Your task to perform on an android device: turn off location Image 0: 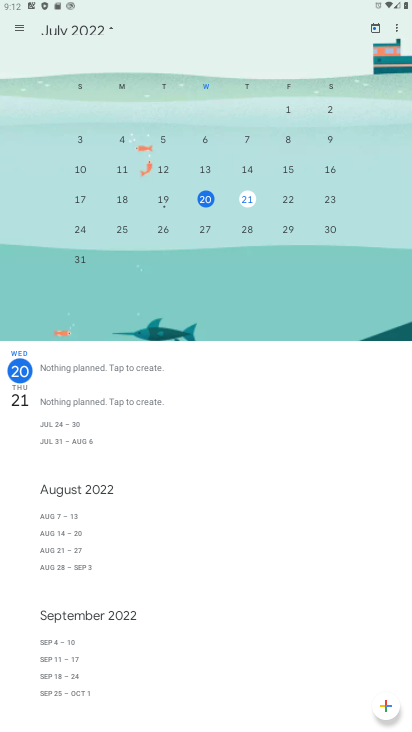
Step 0: press home button
Your task to perform on an android device: turn off location Image 1: 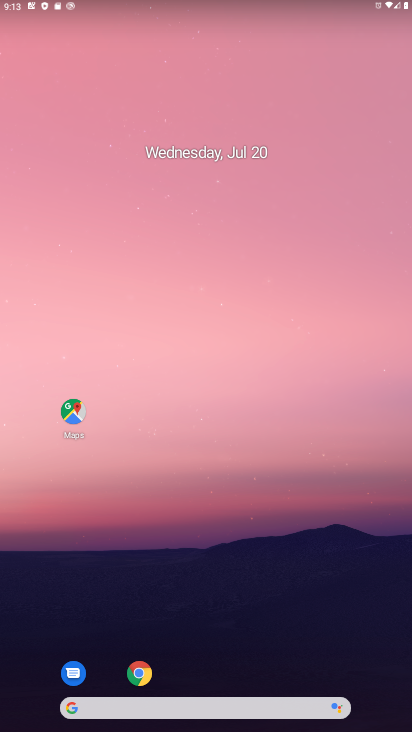
Step 1: drag from (209, 724) to (209, 265)
Your task to perform on an android device: turn off location Image 2: 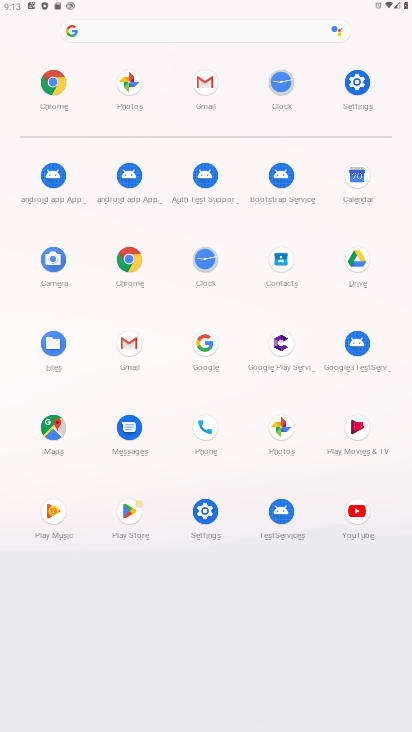
Step 2: click (358, 81)
Your task to perform on an android device: turn off location Image 3: 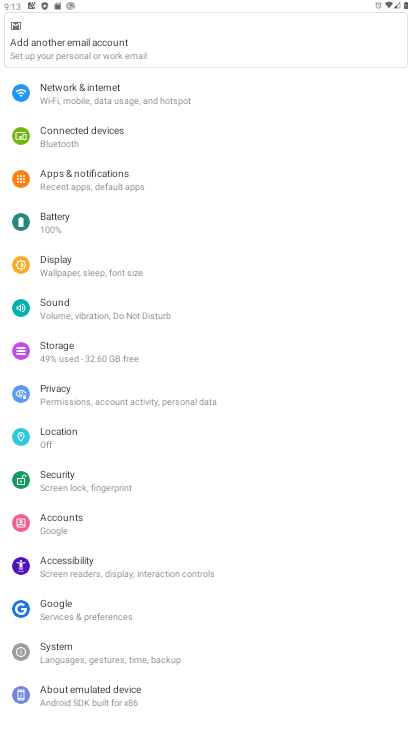
Step 3: click (52, 432)
Your task to perform on an android device: turn off location Image 4: 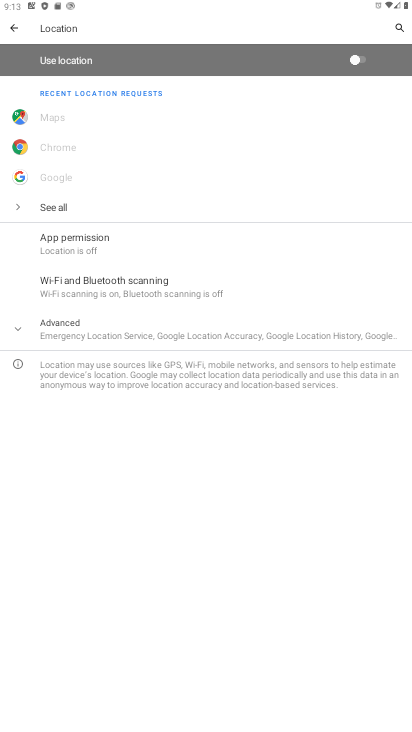
Step 4: task complete